Your task to perform on an android device: Find coffee shops on Maps Image 0: 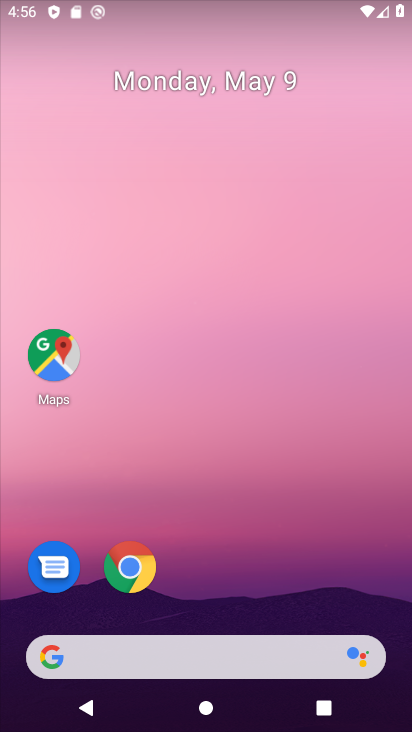
Step 0: drag from (229, 597) to (221, 14)
Your task to perform on an android device: Find coffee shops on Maps Image 1: 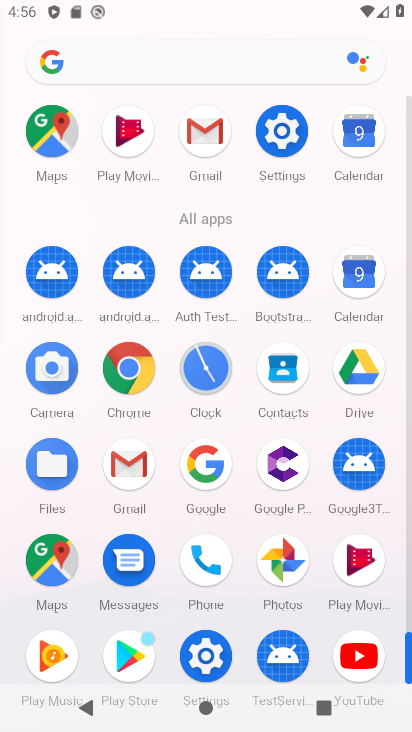
Step 1: click (43, 159)
Your task to perform on an android device: Find coffee shops on Maps Image 2: 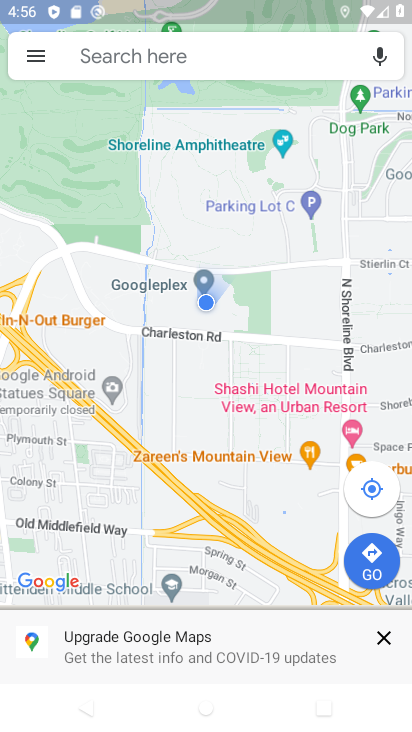
Step 2: click (182, 56)
Your task to perform on an android device: Find coffee shops on Maps Image 3: 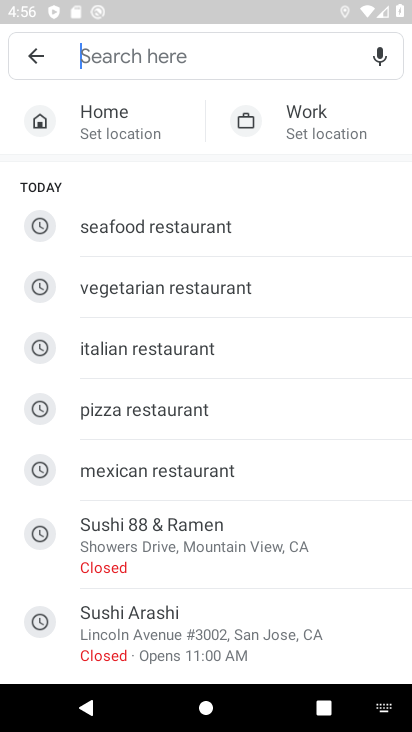
Step 3: type "coffee shops"
Your task to perform on an android device: Find coffee shops on Maps Image 4: 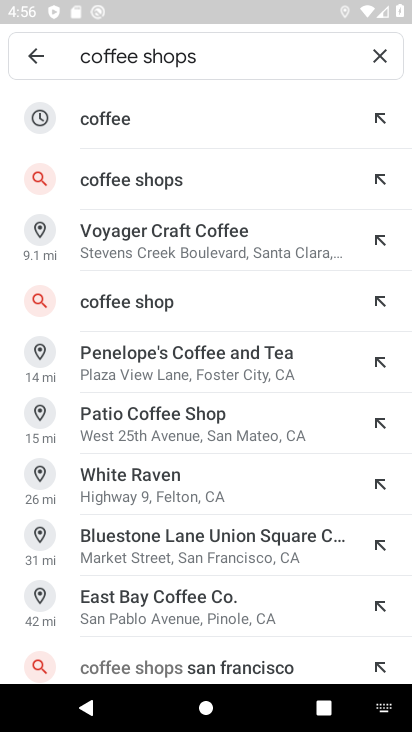
Step 4: click (111, 187)
Your task to perform on an android device: Find coffee shops on Maps Image 5: 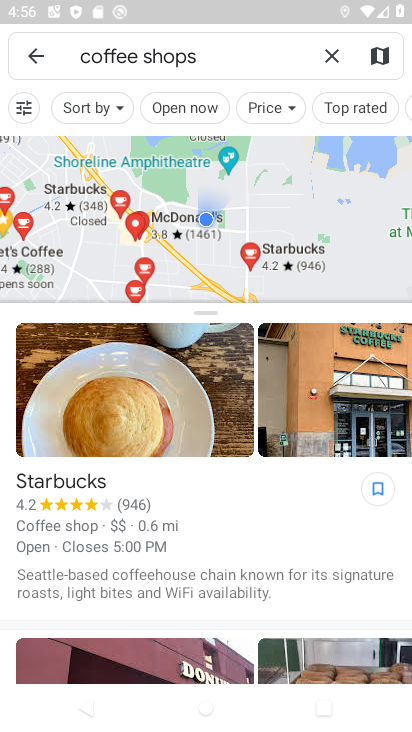
Step 5: task complete